Your task to perform on an android device: add a contact in the contacts app Image 0: 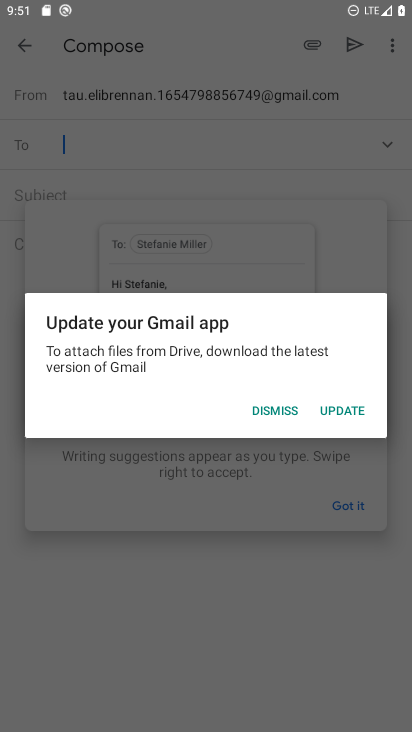
Step 0: press home button
Your task to perform on an android device: add a contact in the contacts app Image 1: 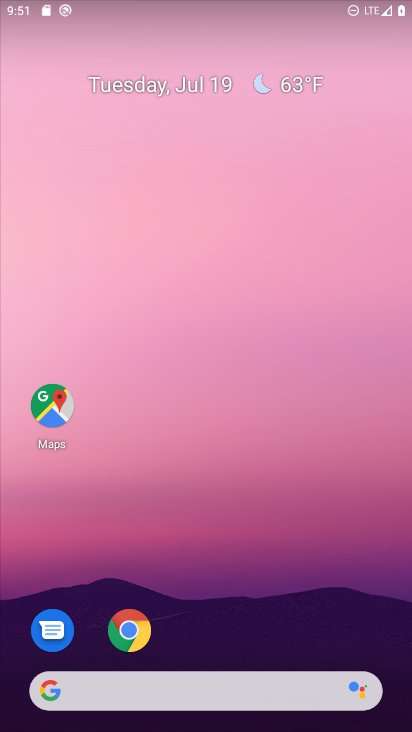
Step 1: drag from (181, 686) to (208, 327)
Your task to perform on an android device: add a contact in the contacts app Image 2: 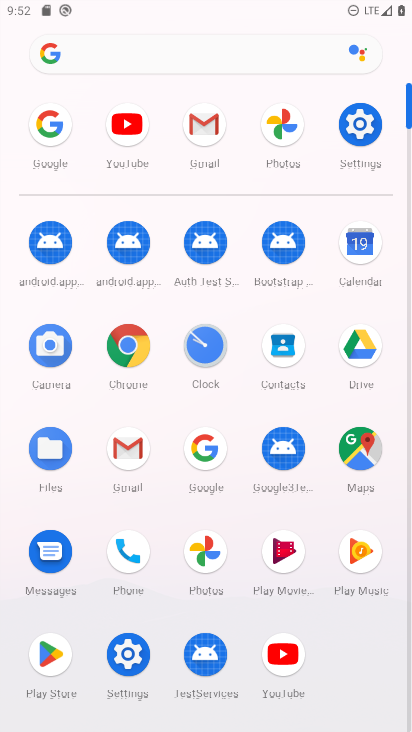
Step 2: click (282, 344)
Your task to perform on an android device: add a contact in the contacts app Image 3: 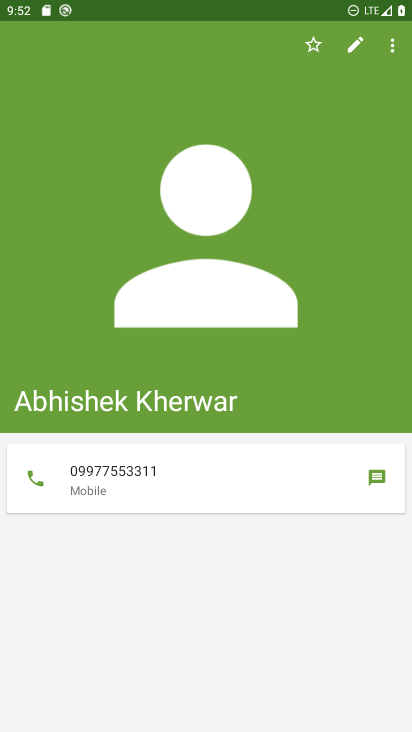
Step 3: press back button
Your task to perform on an android device: add a contact in the contacts app Image 4: 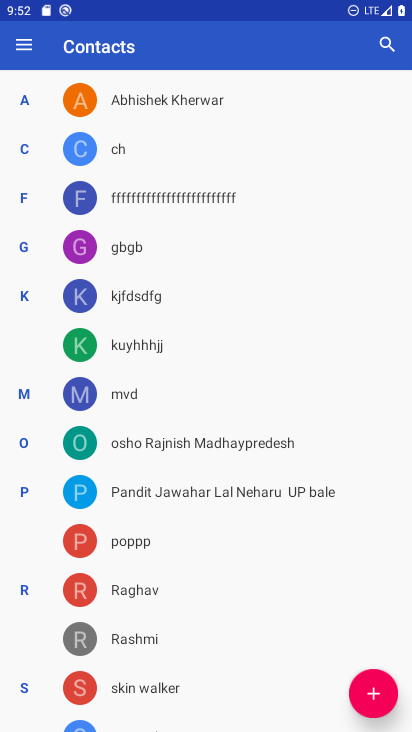
Step 4: click (376, 692)
Your task to perform on an android device: add a contact in the contacts app Image 5: 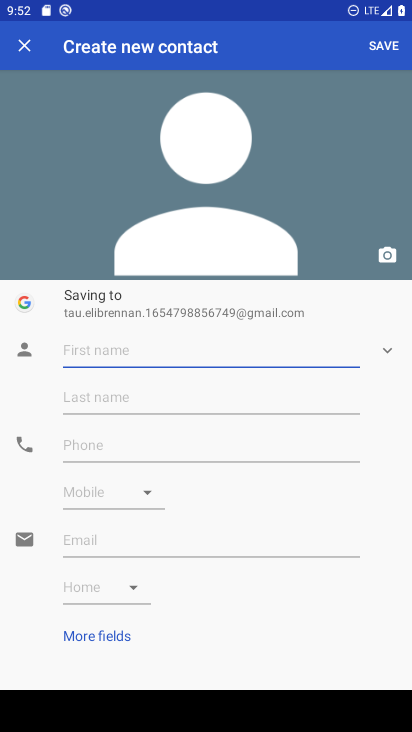
Step 5: click (175, 350)
Your task to perform on an android device: add a contact in the contacts app Image 6: 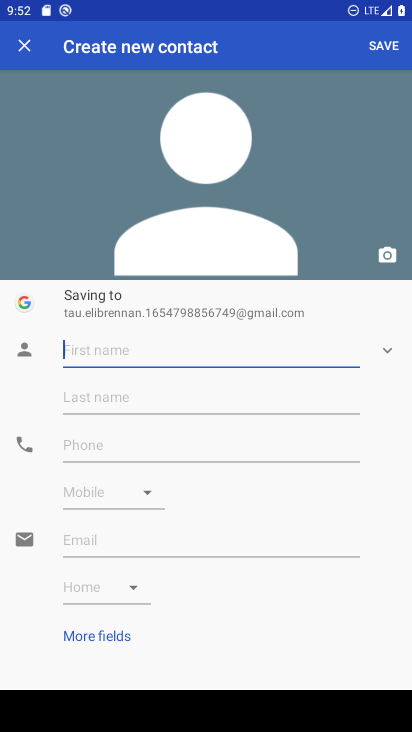
Step 6: type "Satyaprakash"
Your task to perform on an android device: add a contact in the contacts app Image 7: 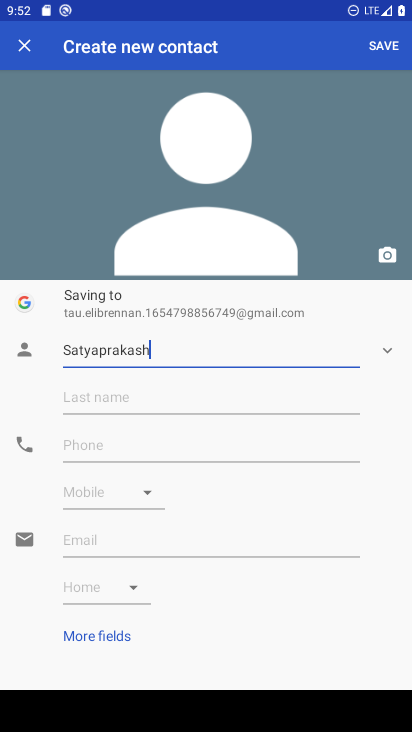
Step 7: click (156, 400)
Your task to perform on an android device: add a contact in the contacts app Image 8: 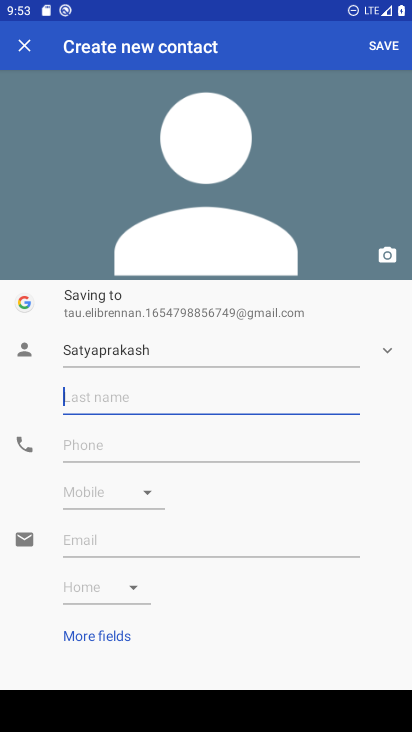
Step 8: type "Tripathi"
Your task to perform on an android device: add a contact in the contacts app Image 9: 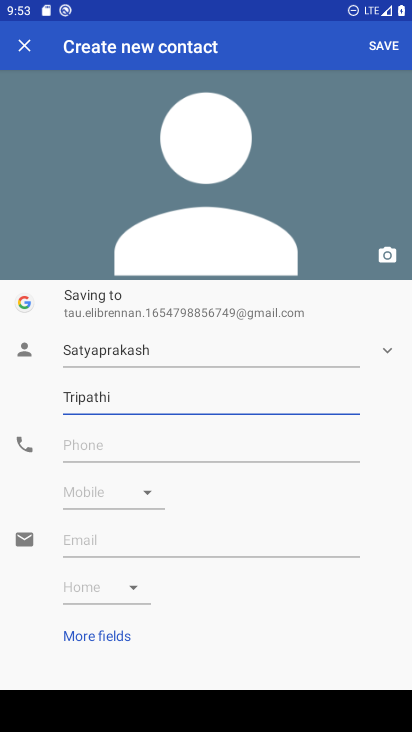
Step 9: click (195, 446)
Your task to perform on an android device: add a contact in the contacts app Image 10: 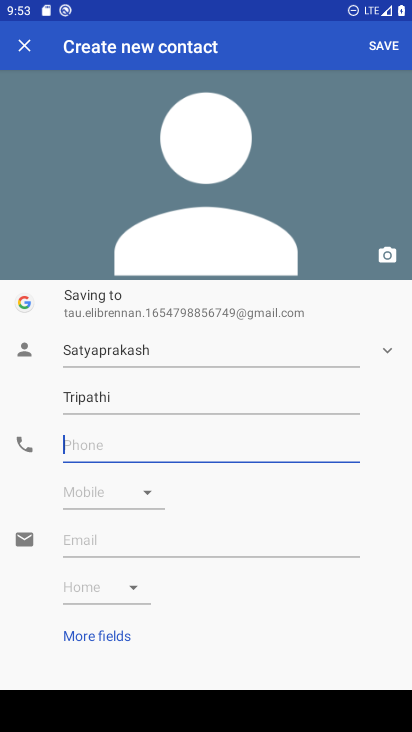
Step 10: type "0987654321"
Your task to perform on an android device: add a contact in the contacts app Image 11: 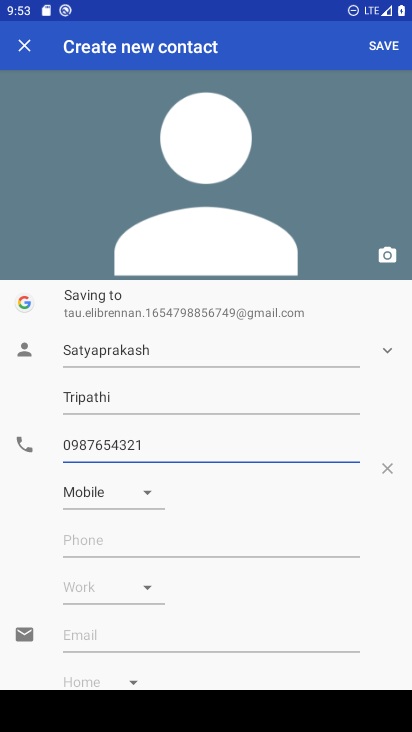
Step 11: click (389, 45)
Your task to perform on an android device: add a contact in the contacts app Image 12: 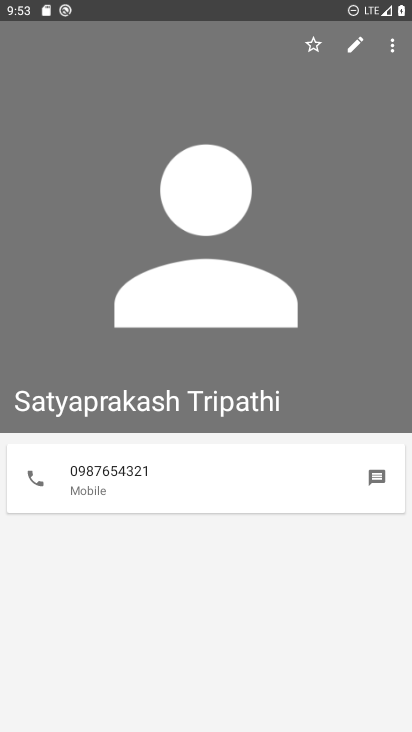
Step 12: task complete